Your task to perform on an android device: turn on data saver in the chrome app Image 0: 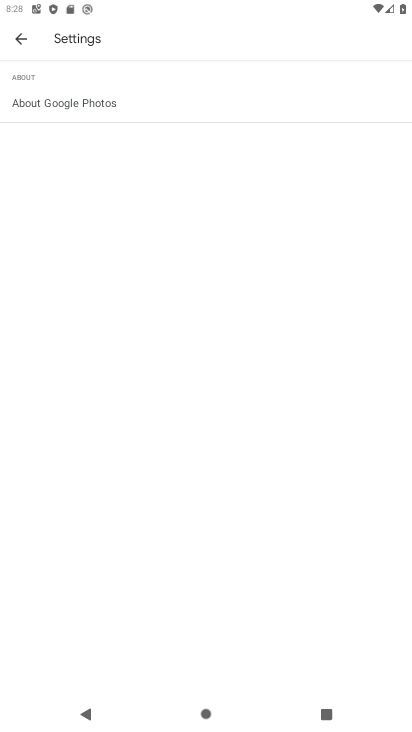
Step 0: press home button
Your task to perform on an android device: turn on data saver in the chrome app Image 1: 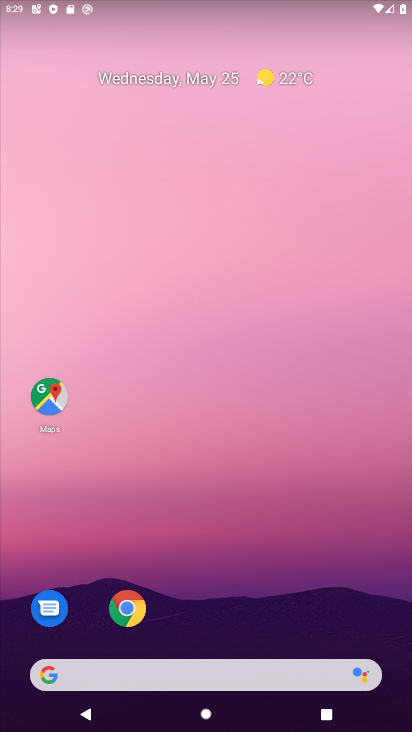
Step 1: click (128, 610)
Your task to perform on an android device: turn on data saver in the chrome app Image 2: 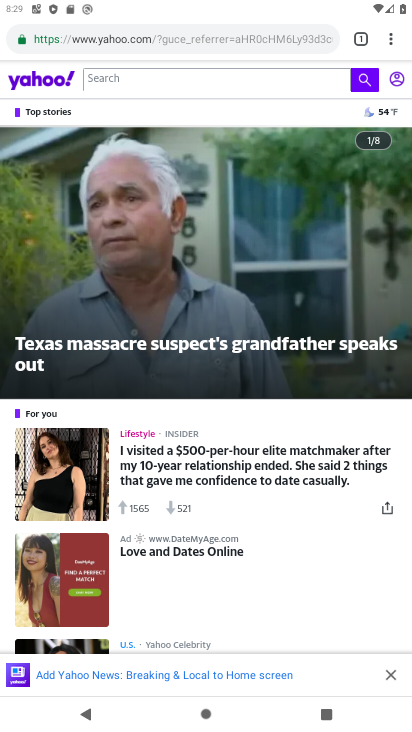
Step 2: click (391, 39)
Your task to perform on an android device: turn on data saver in the chrome app Image 3: 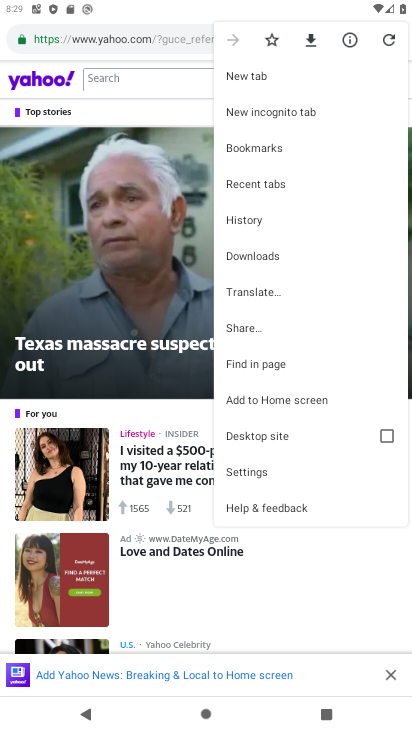
Step 3: click (251, 471)
Your task to perform on an android device: turn on data saver in the chrome app Image 4: 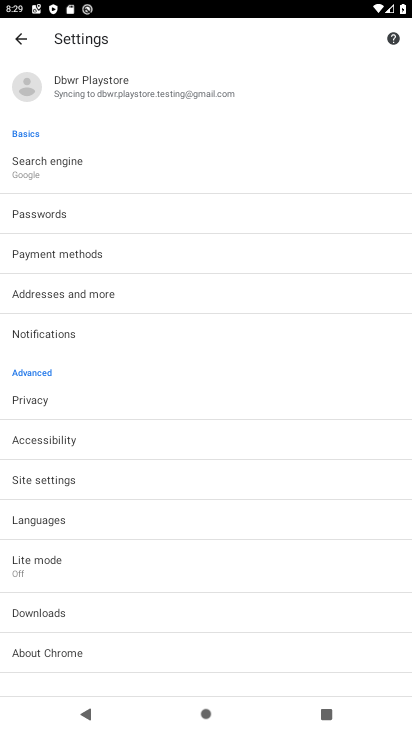
Step 4: click (65, 565)
Your task to perform on an android device: turn on data saver in the chrome app Image 5: 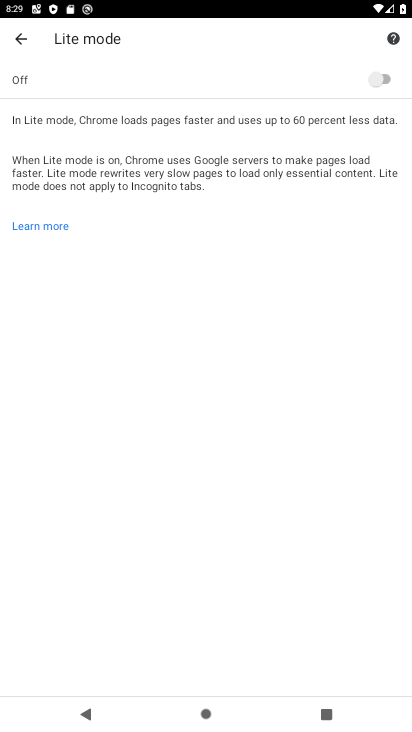
Step 5: click (374, 79)
Your task to perform on an android device: turn on data saver in the chrome app Image 6: 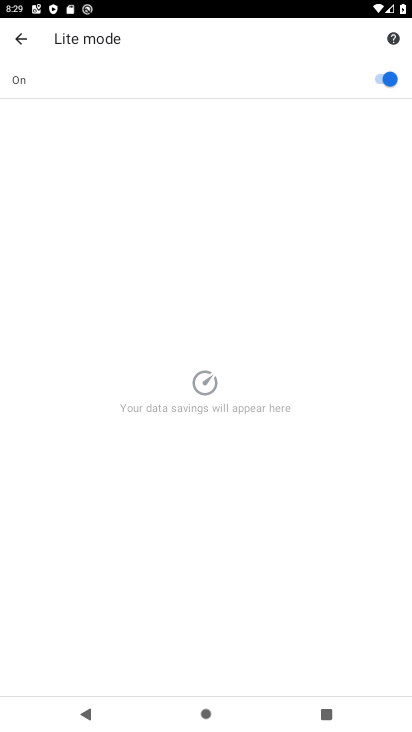
Step 6: task complete